Your task to perform on an android device: turn off sleep mode Image 0: 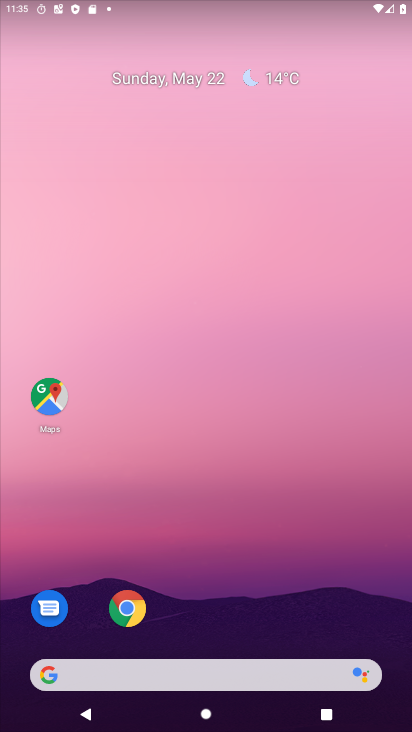
Step 0: drag from (218, 725) to (200, 7)
Your task to perform on an android device: turn off sleep mode Image 1: 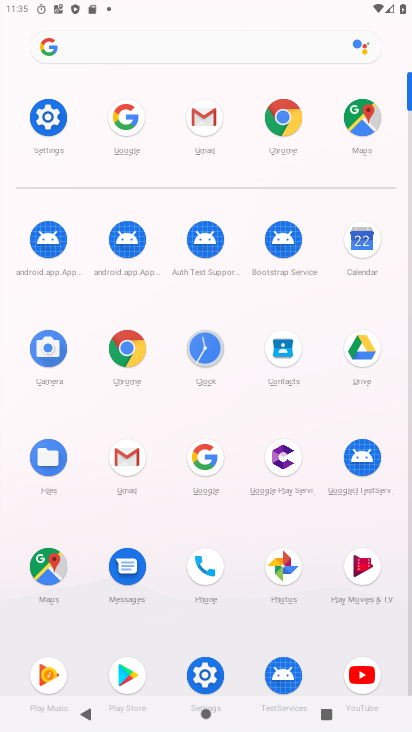
Step 1: click (43, 118)
Your task to perform on an android device: turn off sleep mode Image 2: 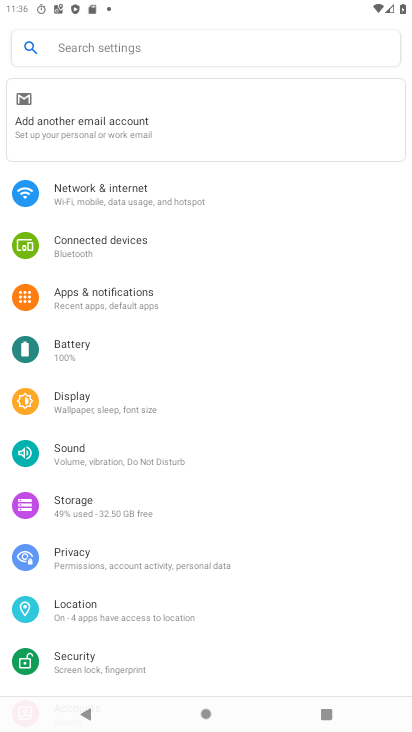
Step 2: task complete